Your task to perform on an android device: Go to notification settings Image 0: 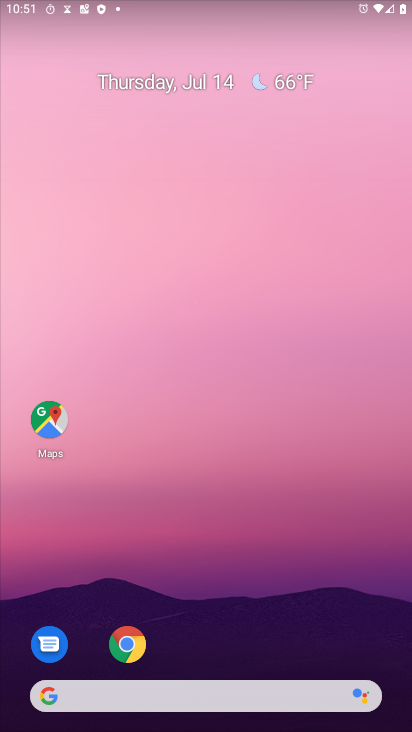
Step 0: drag from (303, 722) to (276, 208)
Your task to perform on an android device: Go to notification settings Image 1: 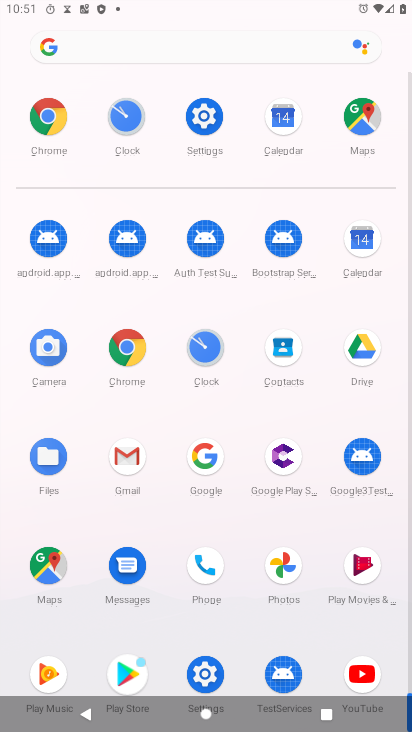
Step 1: click (206, 114)
Your task to perform on an android device: Go to notification settings Image 2: 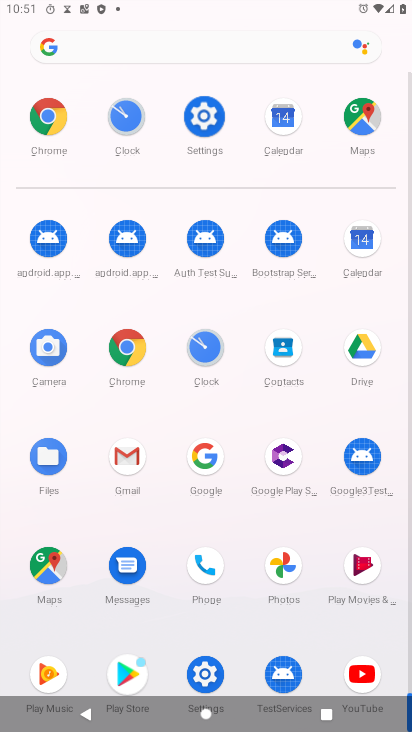
Step 2: click (204, 102)
Your task to perform on an android device: Go to notification settings Image 3: 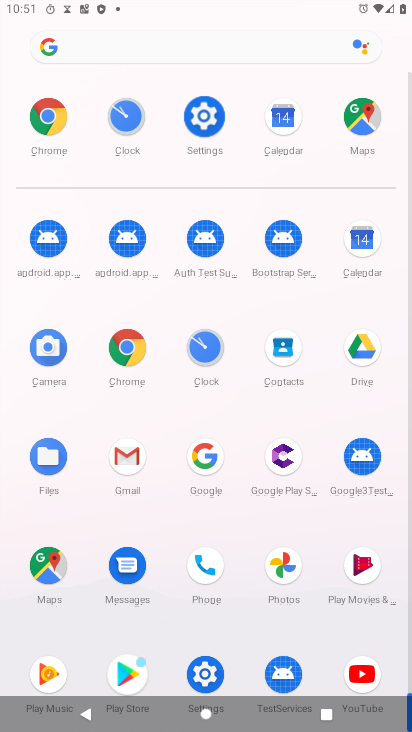
Step 3: click (204, 102)
Your task to perform on an android device: Go to notification settings Image 4: 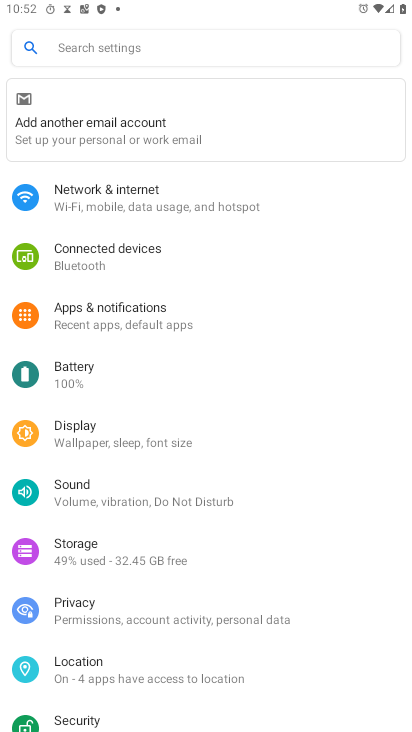
Step 4: click (117, 306)
Your task to perform on an android device: Go to notification settings Image 5: 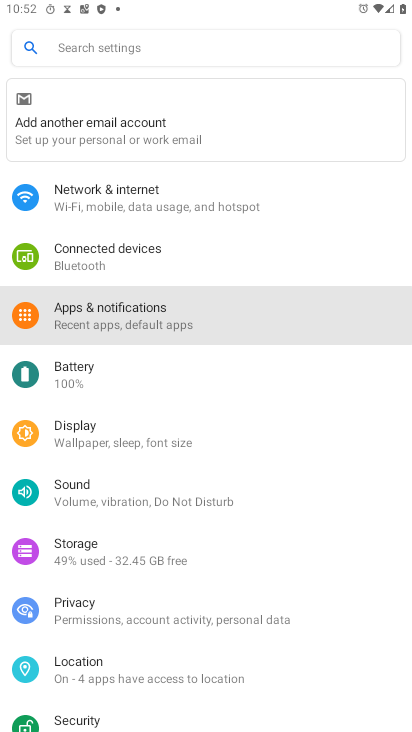
Step 5: click (119, 299)
Your task to perform on an android device: Go to notification settings Image 6: 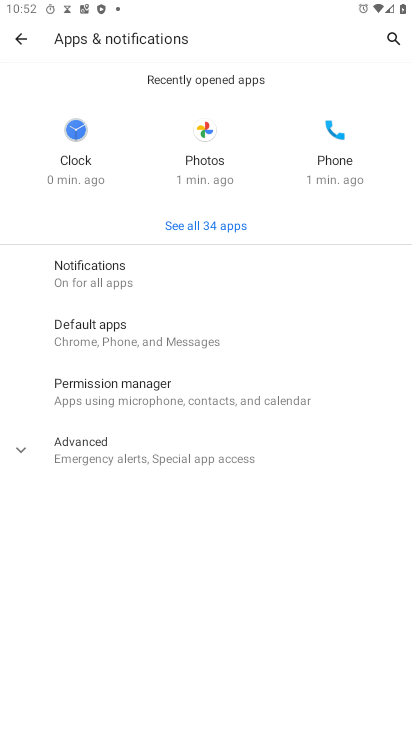
Step 6: click (97, 277)
Your task to perform on an android device: Go to notification settings Image 7: 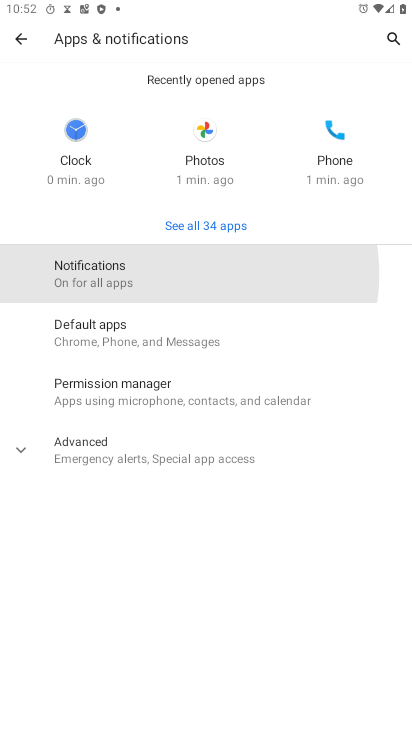
Step 7: click (97, 277)
Your task to perform on an android device: Go to notification settings Image 8: 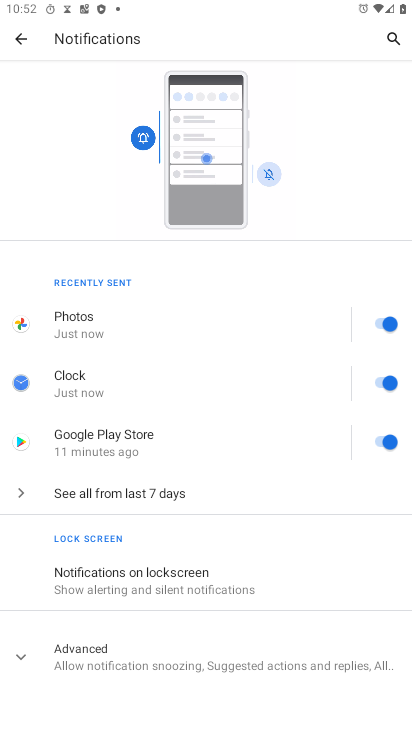
Step 8: drag from (132, 593) to (122, 302)
Your task to perform on an android device: Go to notification settings Image 9: 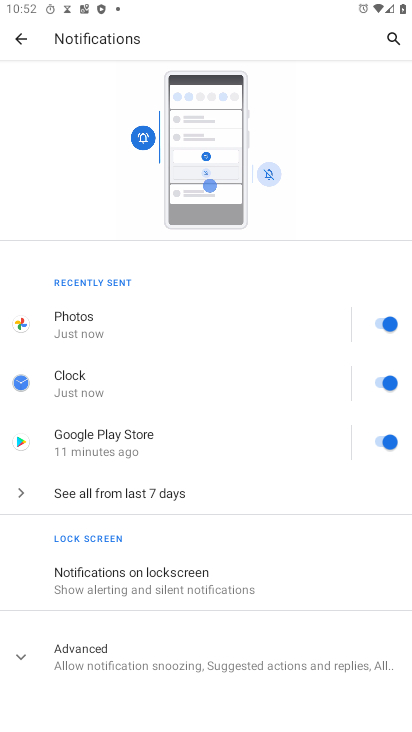
Step 9: click (94, 667)
Your task to perform on an android device: Go to notification settings Image 10: 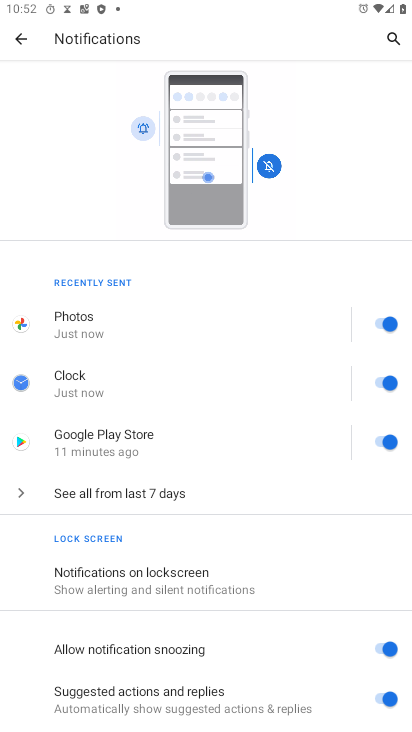
Step 10: task complete